Your task to perform on an android device: Go to Wikipedia Image 0: 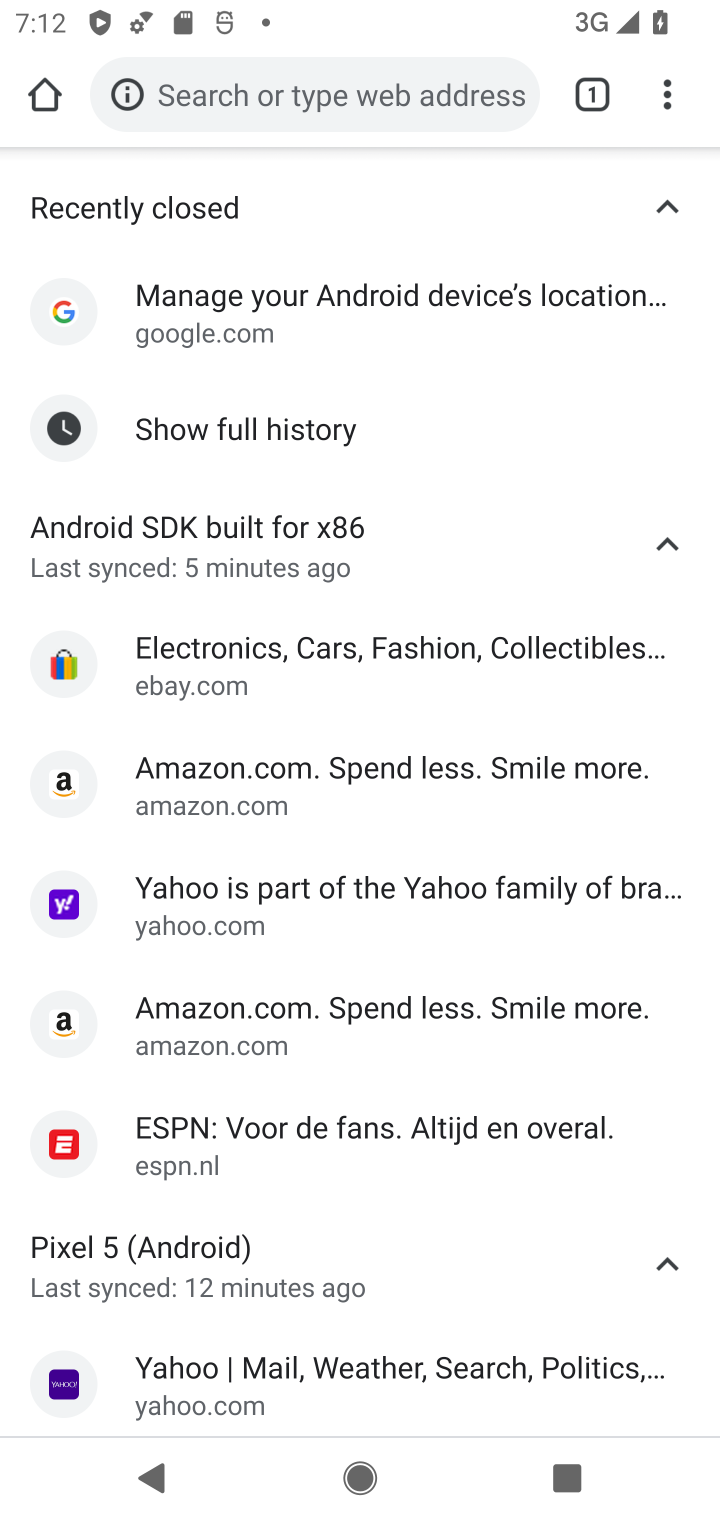
Step 0: click (340, 106)
Your task to perform on an android device: Go to Wikipedia Image 1: 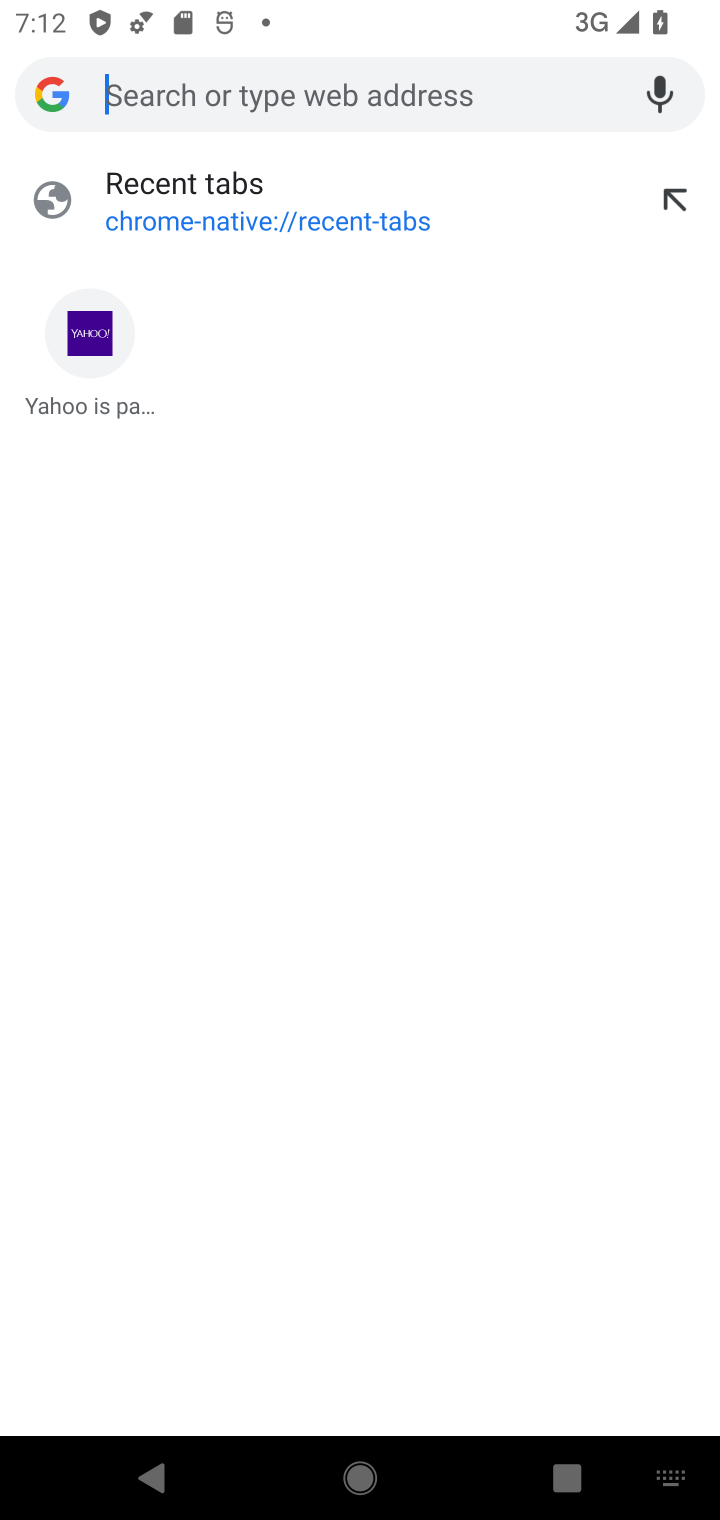
Step 1: type "Wikipedia"
Your task to perform on an android device: Go to Wikipedia Image 2: 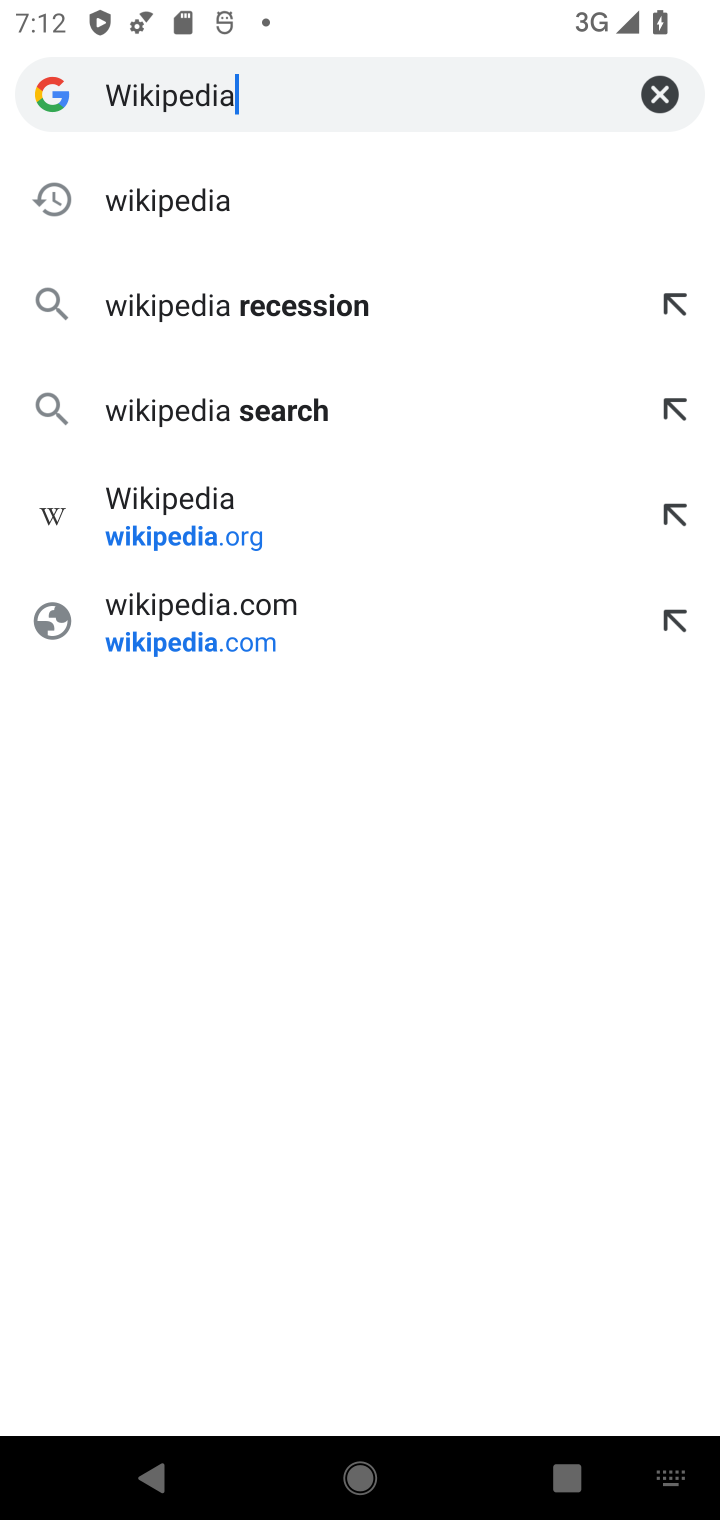
Step 2: click (121, 207)
Your task to perform on an android device: Go to Wikipedia Image 3: 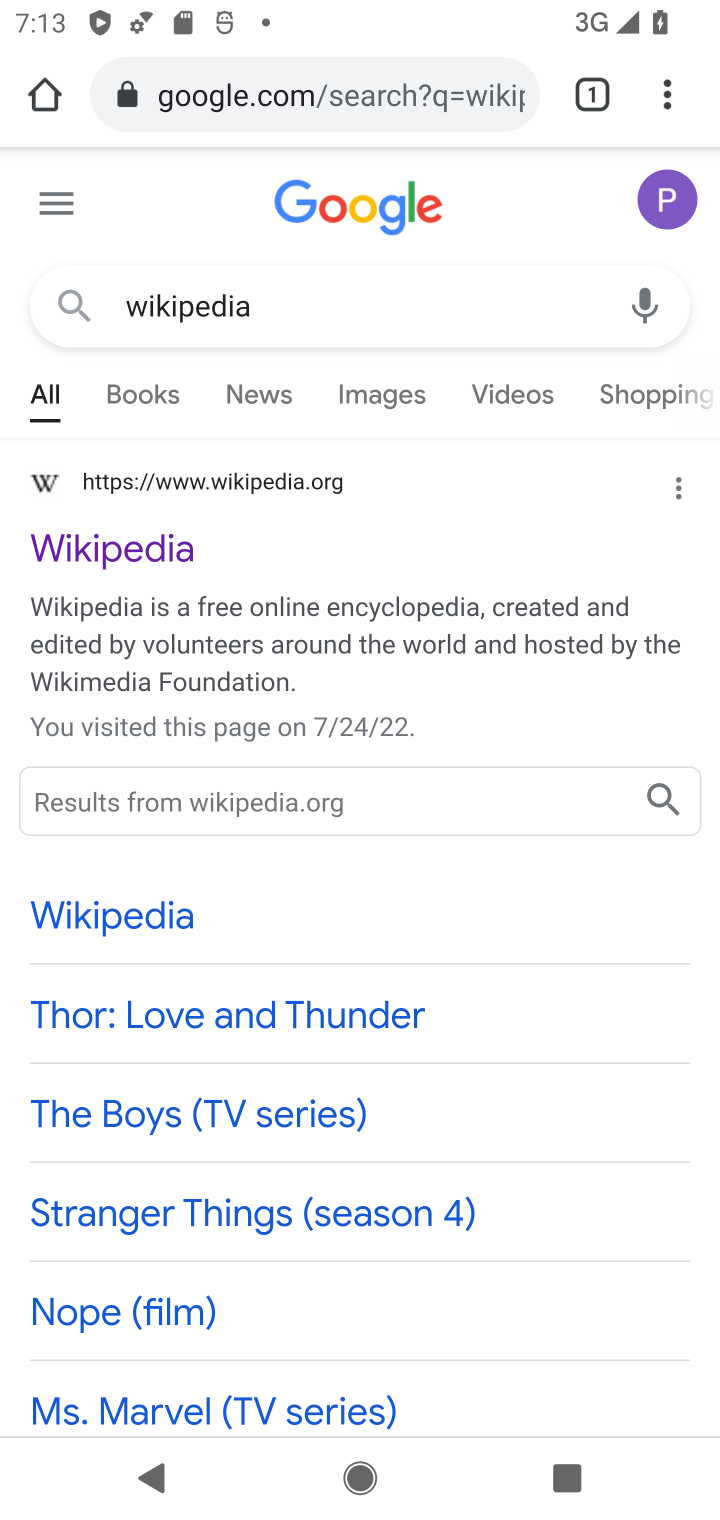
Step 3: click (83, 563)
Your task to perform on an android device: Go to Wikipedia Image 4: 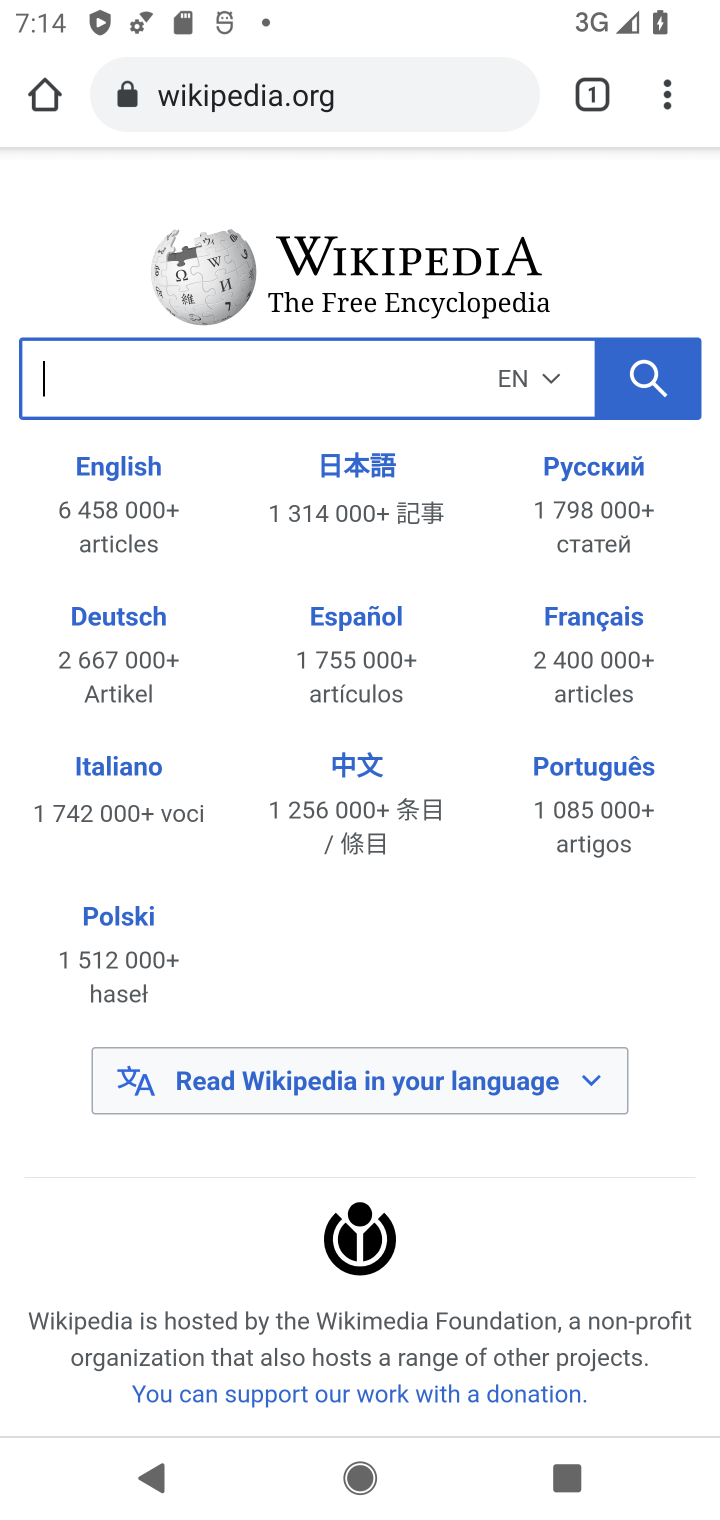
Step 4: task complete